Your task to perform on an android device: find which apps use the phone's location Image 0: 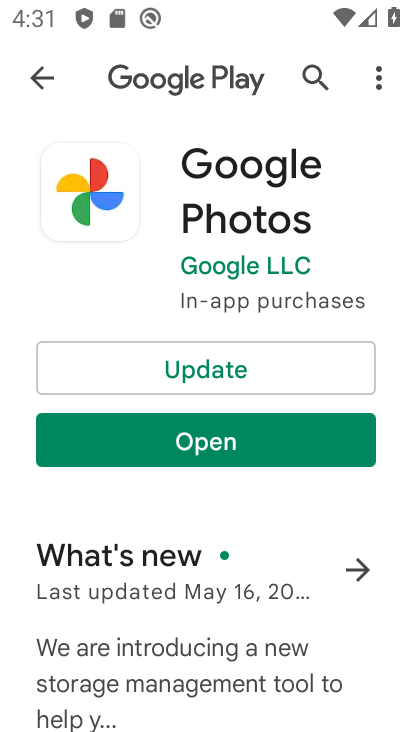
Step 0: press back button
Your task to perform on an android device: find which apps use the phone's location Image 1: 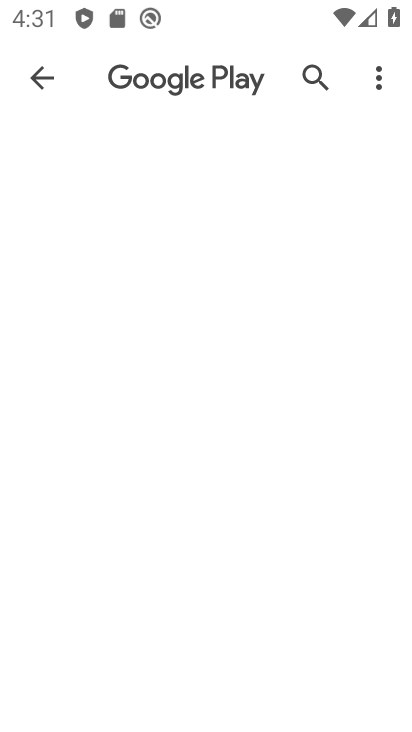
Step 1: press back button
Your task to perform on an android device: find which apps use the phone's location Image 2: 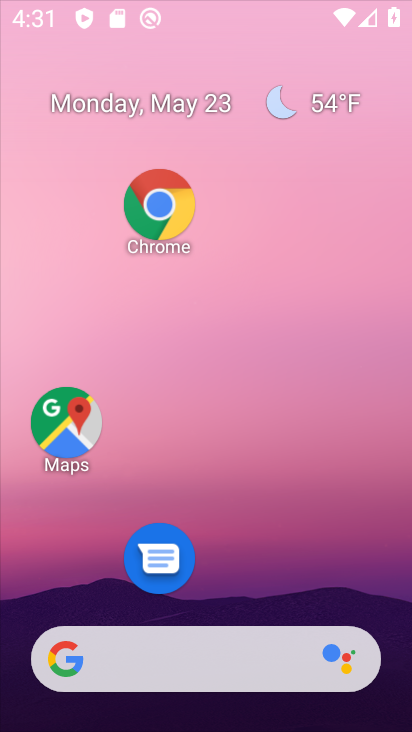
Step 2: press back button
Your task to perform on an android device: find which apps use the phone's location Image 3: 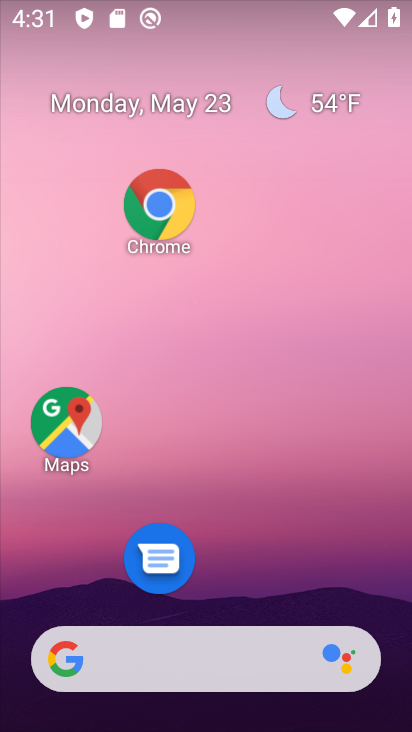
Step 3: drag from (259, 572) to (143, 36)
Your task to perform on an android device: find which apps use the phone's location Image 4: 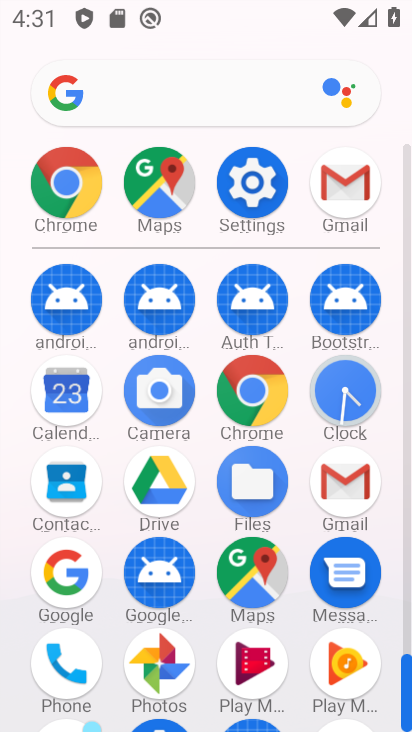
Step 4: click (237, 200)
Your task to perform on an android device: find which apps use the phone's location Image 5: 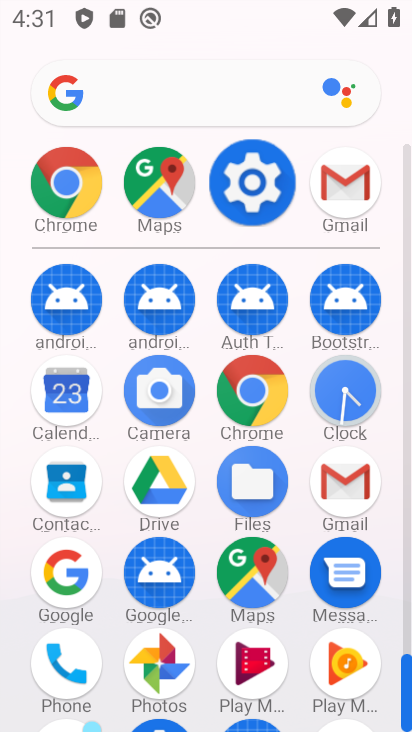
Step 5: click (237, 200)
Your task to perform on an android device: find which apps use the phone's location Image 6: 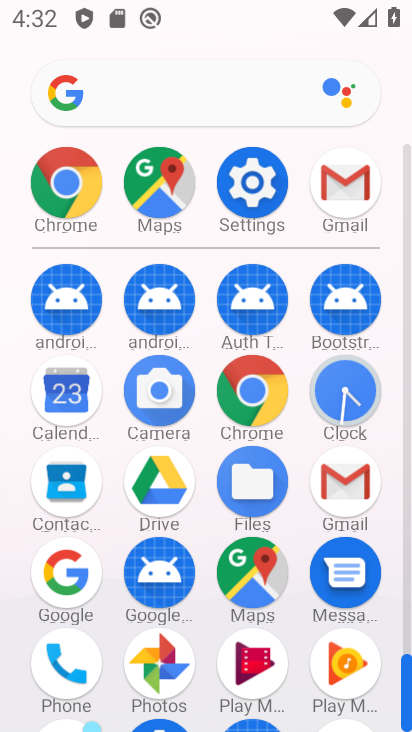
Step 6: click (237, 200)
Your task to perform on an android device: find which apps use the phone's location Image 7: 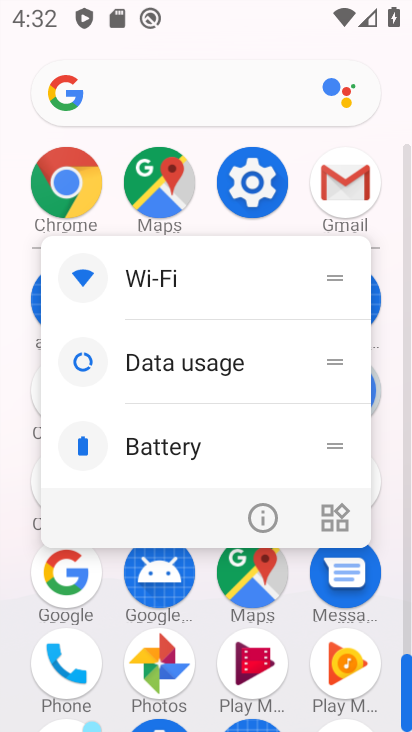
Step 7: click (240, 204)
Your task to perform on an android device: find which apps use the phone's location Image 8: 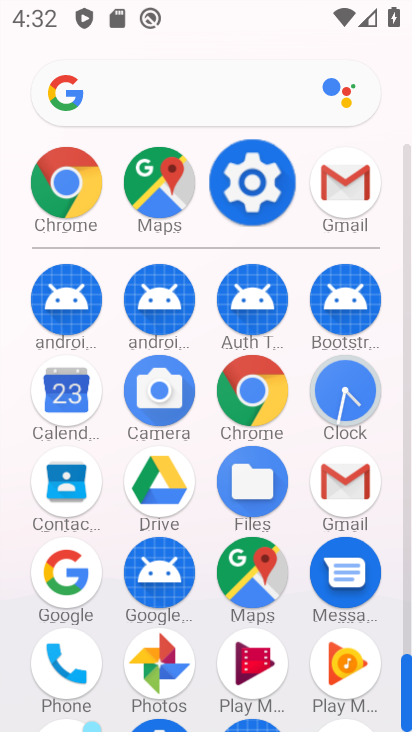
Step 8: click (250, 187)
Your task to perform on an android device: find which apps use the phone's location Image 9: 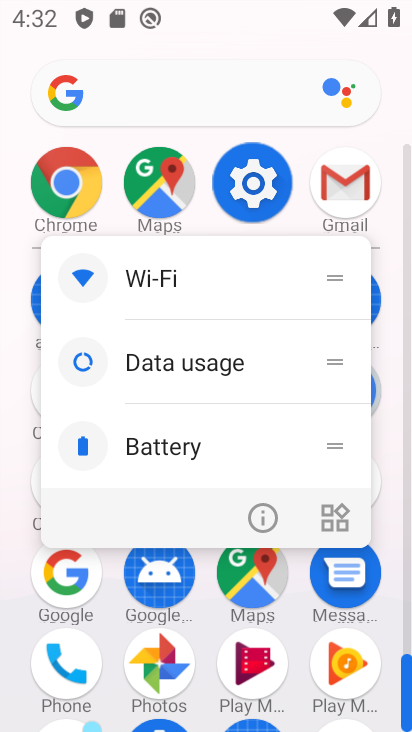
Step 9: click (233, 190)
Your task to perform on an android device: find which apps use the phone's location Image 10: 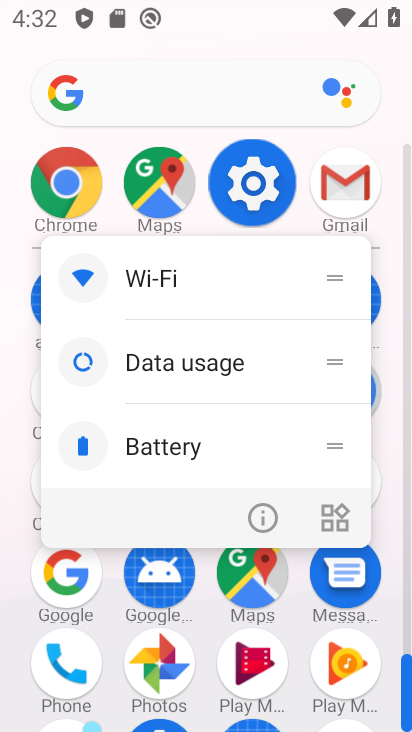
Step 10: click (236, 194)
Your task to perform on an android device: find which apps use the phone's location Image 11: 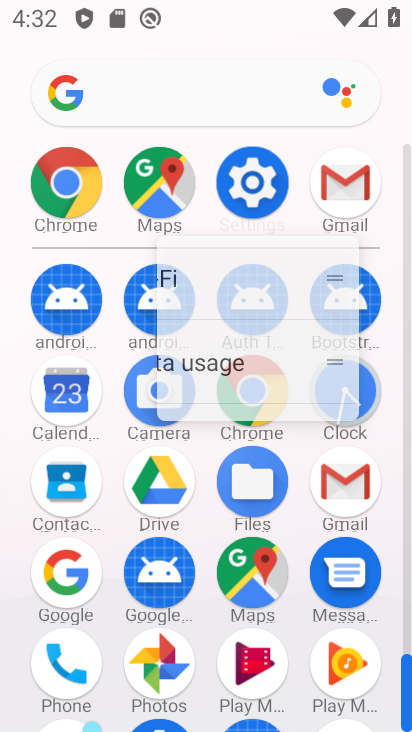
Step 11: click (236, 197)
Your task to perform on an android device: find which apps use the phone's location Image 12: 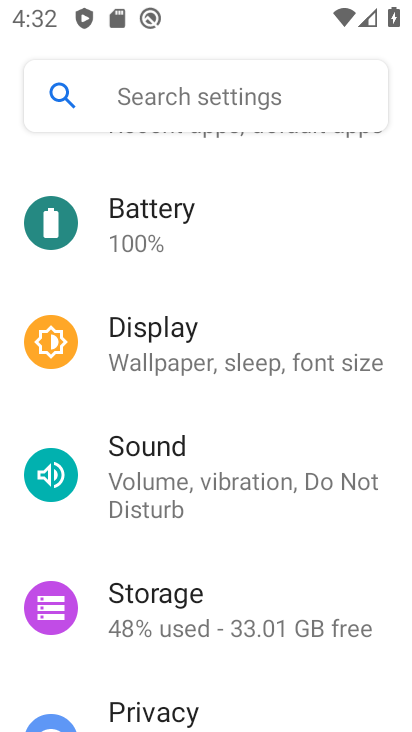
Step 12: drag from (190, 398) to (157, 280)
Your task to perform on an android device: find which apps use the phone's location Image 13: 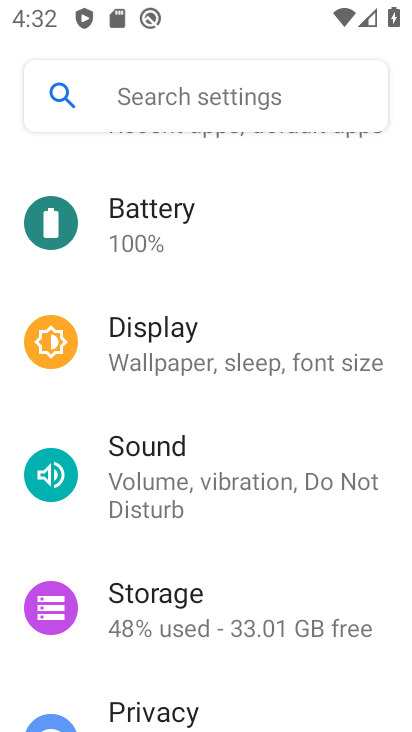
Step 13: drag from (229, 532) to (222, 243)
Your task to perform on an android device: find which apps use the phone's location Image 14: 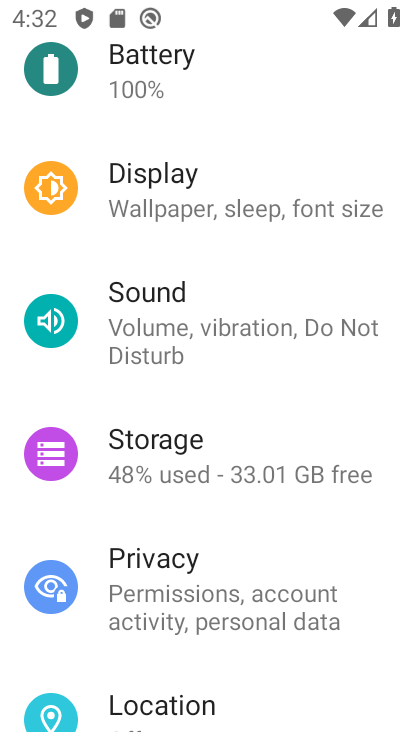
Step 14: drag from (238, 491) to (156, 266)
Your task to perform on an android device: find which apps use the phone's location Image 15: 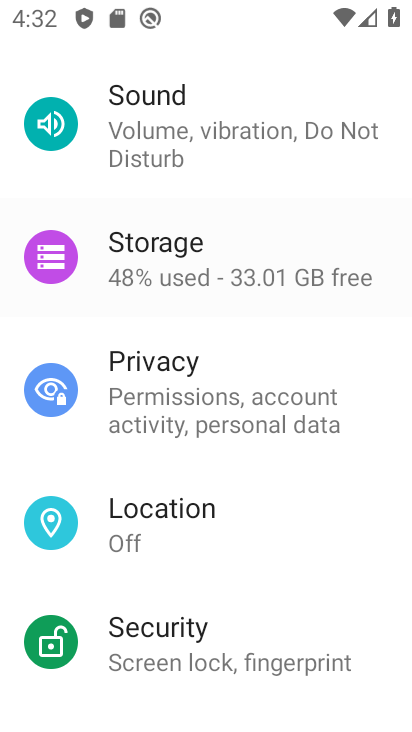
Step 15: drag from (194, 407) to (185, 196)
Your task to perform on an android device: find which apps use the phone's location Image 16: 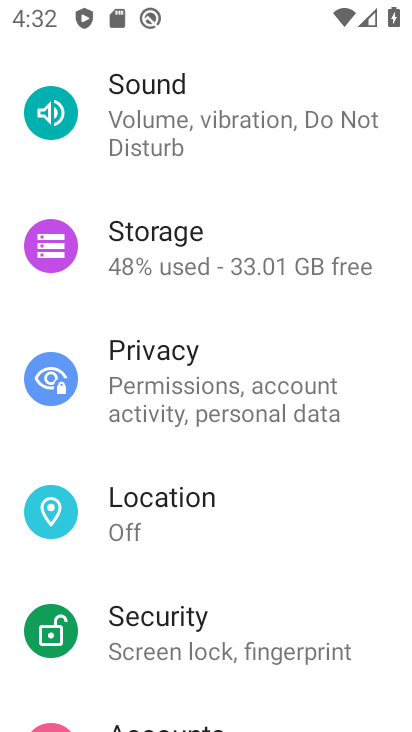
Step 16: drag from (258, 405) to (210, 216)
Your task to perform on an android device: find which apps use the phone's location Image 17: 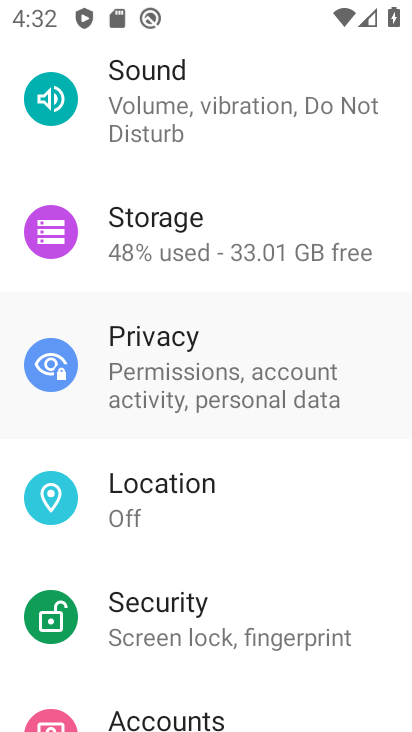
Step 17: drag from (231, 500) to (133, 166)
Your task to perform on an android device: find which apps use the phone's location Image 18: 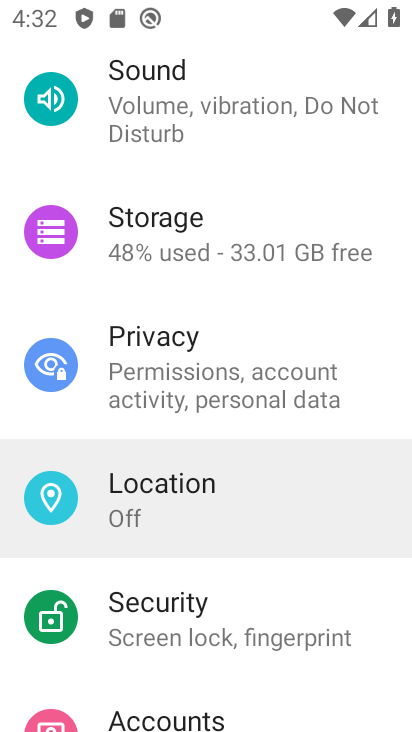
Step 18: drag from (183, 509) to (162, 281)
Your task to perform on an android device: find which apps use the phone's location Image 19: 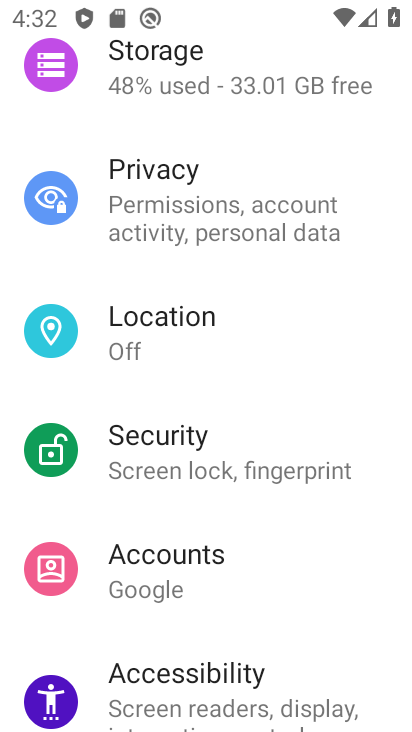
Step 19: drag from (239, 498) to (192, 111)
Your task to perform on an android device: find which apps use the phone's location Image 20: 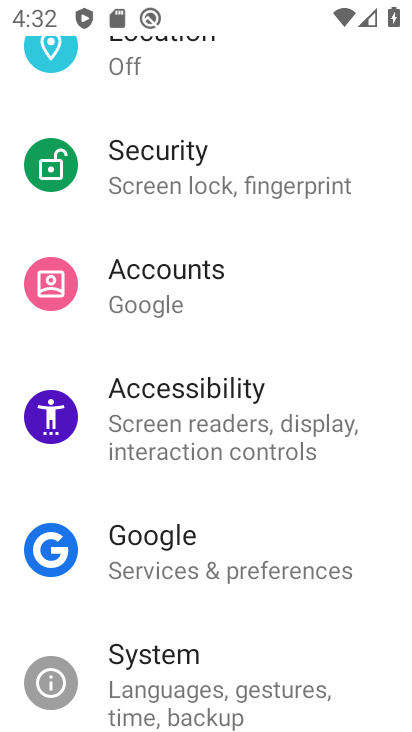
Step 20: drag from (204, 334) to (181, 255)
Your task to perform on an android device: find which apps use the phone's location Image 21: 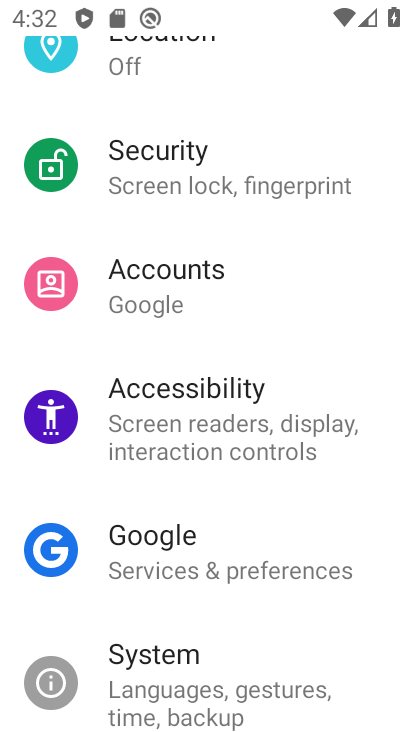
Step 21: drag from (241, 55) to (265, 98)
Your task to perform on an android device: find which apps use the phone's location Image 22: 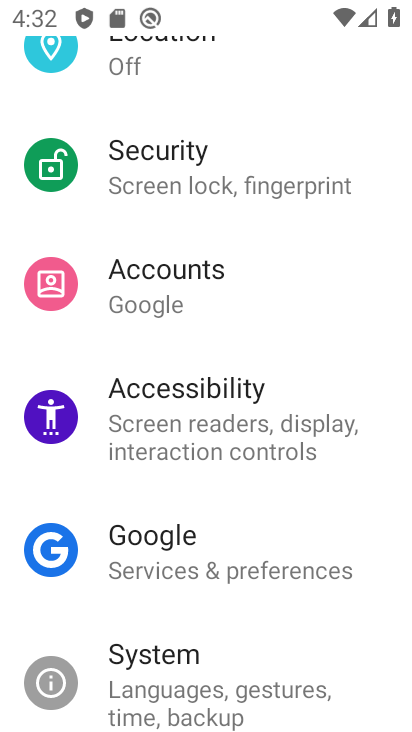
Step 22: drag from (192, 628) to (286, 139)
Your task to perform on an android device: find which apps use the phone's location Image 23: 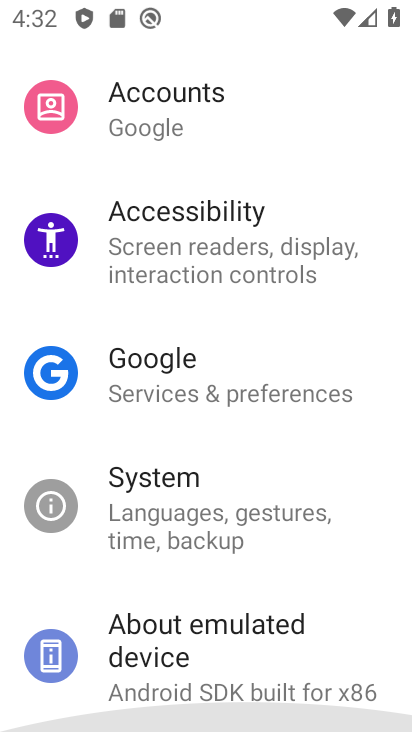
Step 23: drag from (223, 620) to (293, 157)
Your task to perform on an android device: find which apps use the phone's location Image 24: 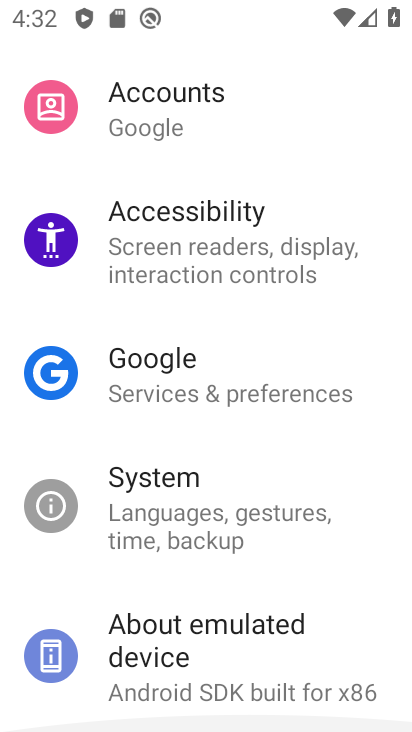
Step 24: drag from (236, 497) to (211, 237)
Your task to perform on an android device: find which apps use the phone's location Image 25: 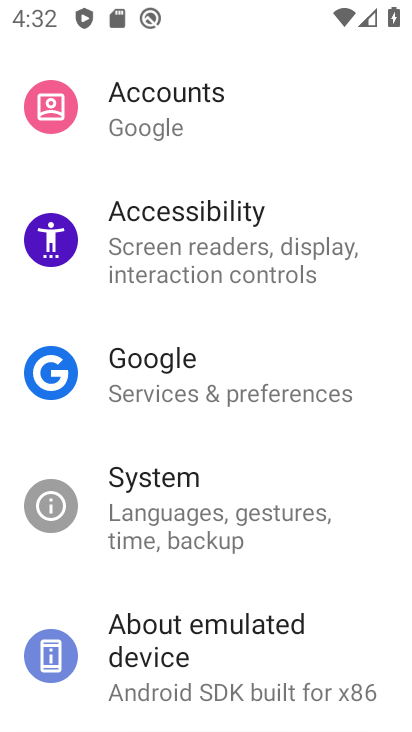
Step 25: drag from (227, 651) to (205, 239)
Your task to perform on an android device: find which apps use the phone's location Image 26: 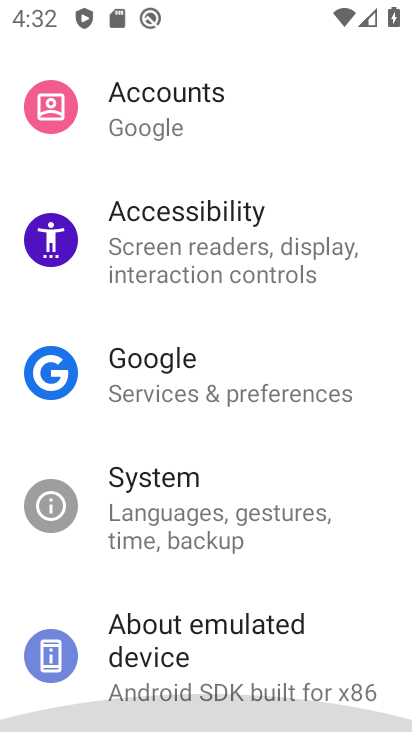
Step 26: drag from (193, 394) to (265, 83)
Your task to perform on an android device: find which apps use the phone's location Image 27: 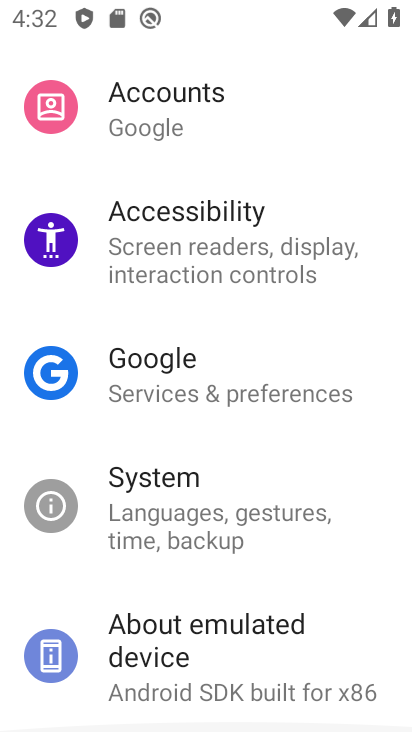
Step 27: drag from (189, 448) to (193, 36)
Your task to perform on an android device: find which apps use the phone's location Image 28: 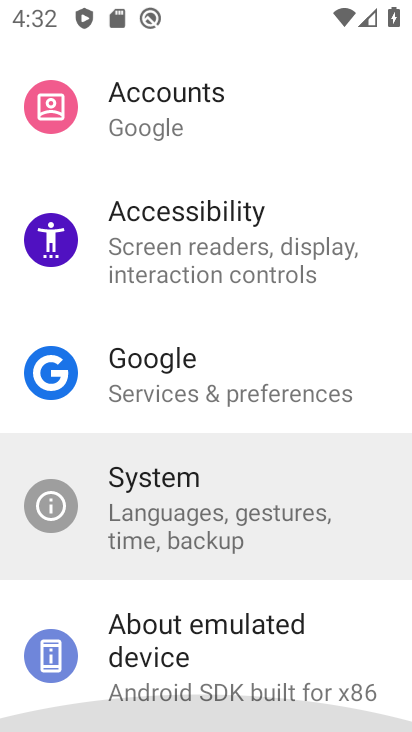
Step 28: drag from (186, 398) to (213, 176)
Your task to perform on an android device: find which apps use the phone's location Image 29: 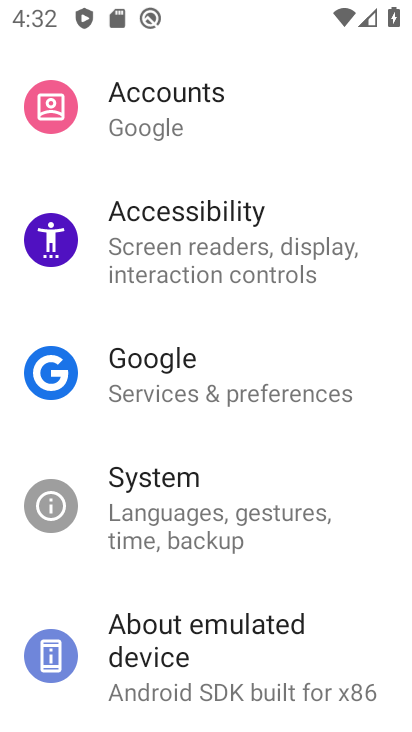
Step 29: drag from (243, 488) to (258, 197)
Your task to perform on an android device: find which apps use the phone's location Image 30: 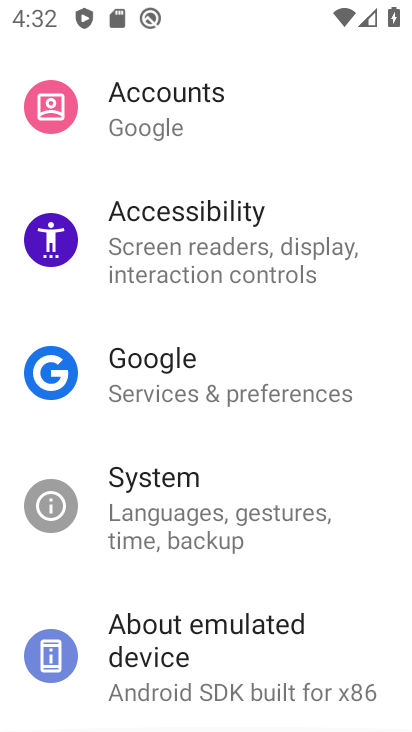
Step 30: drag from (169, 600) to (210, 248)
Your task to perform on an android device: find which apps use the phone's location Image 31: 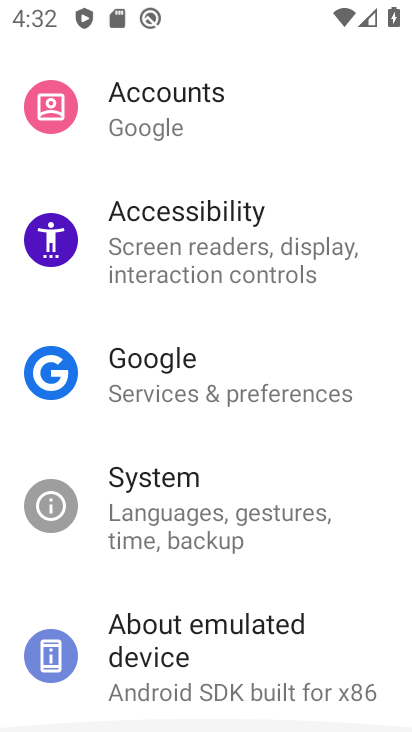
Step 31: drag from (200, 436) to (192, 298)
Your task to perform on an android device: find which apps use the phone's location Image 32: 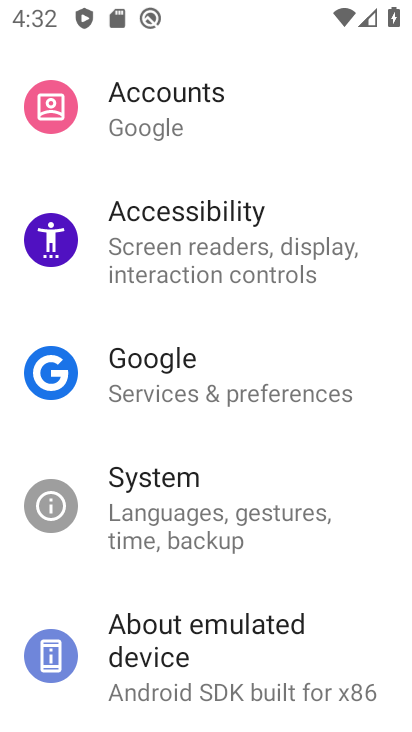
Step 32: drag from (231, 537) to (199, 266)
Your task to perform on an android device: find which apps use the phone's location Image 33: 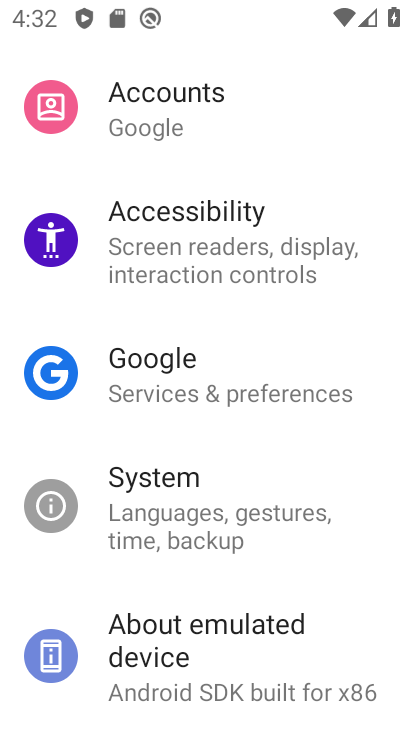
Step 33: drag from (173, 574) to (166, 231)
Your task to perform on an android device: find which apps use the phone's location Image 34: 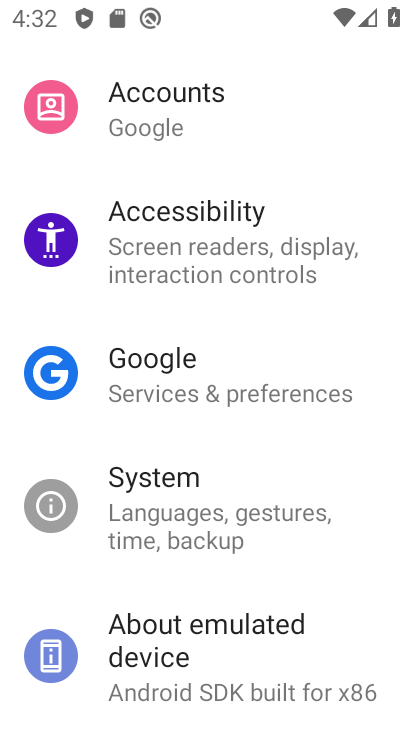
Step 34: drag from (188, 272) to (168, 492)
Your task to perform on an android device: find which apps use the phone's location Image 35: 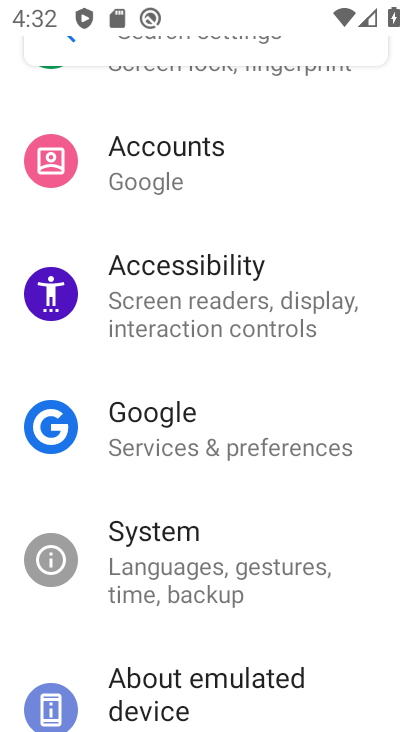
Step 35: drag from (148, 381) to (188, 623)
Your task to perform on an android device: find which apps use the phone's location Image 36: 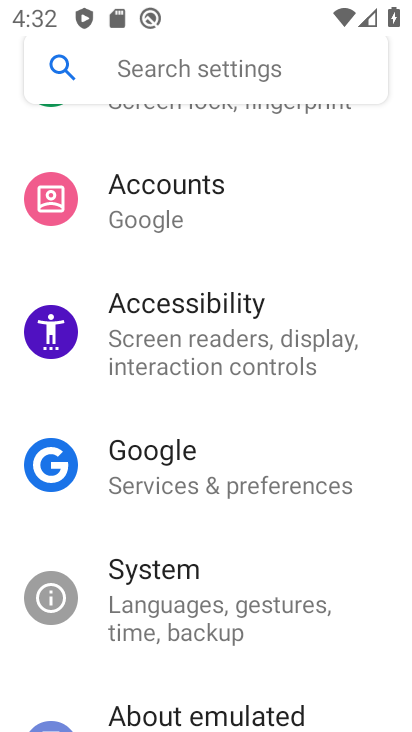
Step 36: drag from (157, 269) to (171, 572)
Your task to perform on an android device: find which apps use the phone's location Image 37: 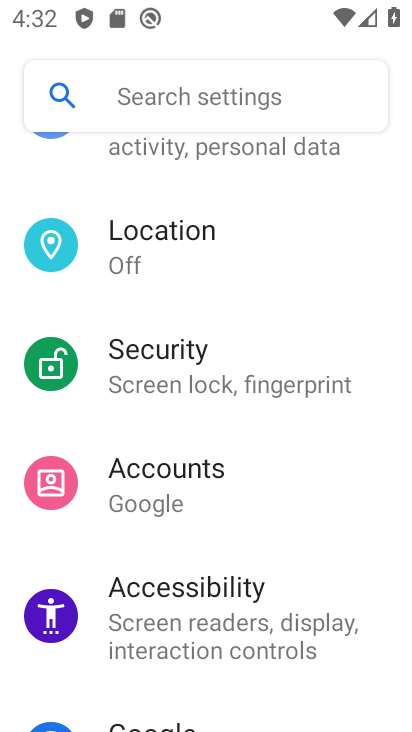
Step 37: drag from (147, 240) to (169, 671)
Your task to perform on an android device: find which apps use the phone's location Image 38: 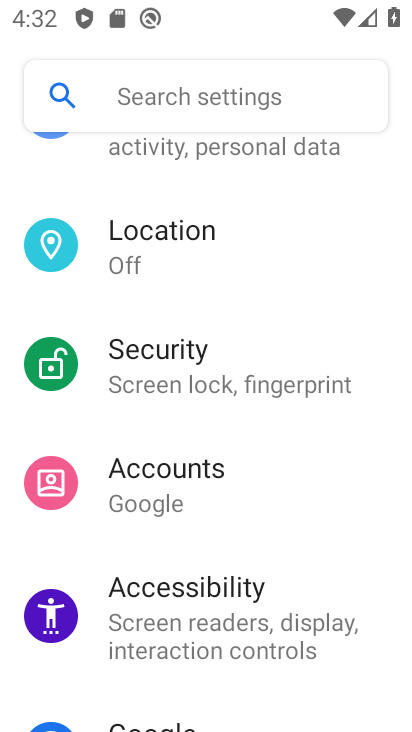
Step 38: drag from (102, 270) to (159, 598)
Your task to perform on an android device: find which apps use the phone's location Image 39: 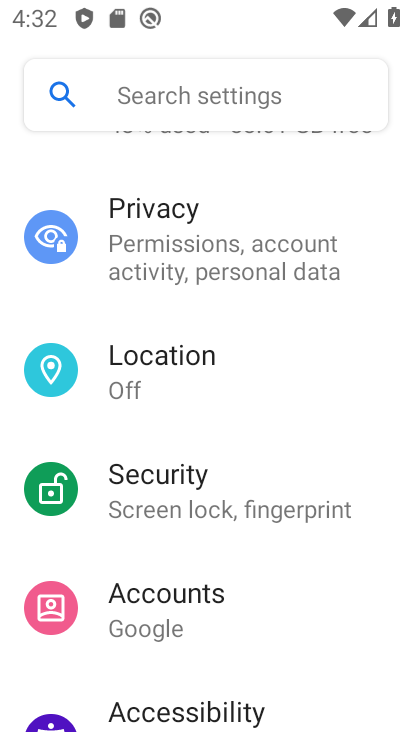
Step 39: click (143, 379)
Your task to perform on an android device: find which apps use the phone's location Image 40: 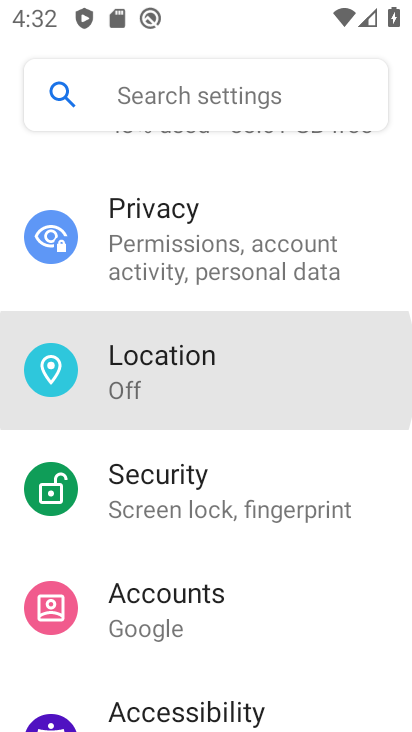
Step 40: click (143, 379)
Your task to perform on an android device: find which apps use the phone's location Image 41: 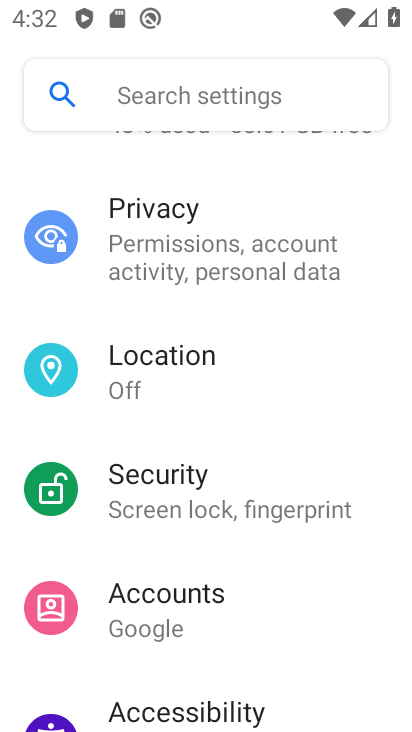
Step 41: click (142, 378)
Your task to perform on an android device: find which apps use the phone's location Image 42: 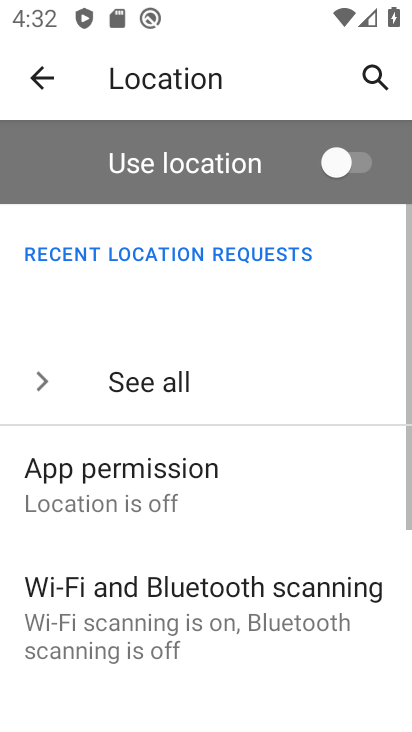
Step 42: click (142, 378)
Your task to perform on an android device: find which apps use the phone's location Image 43: 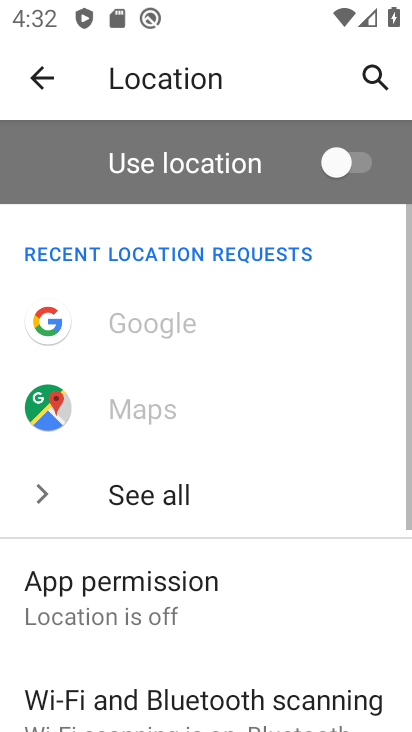
Step 43: click (143, 381)
Your task to perform on an android device: find which apps use the phone's location Image 44: 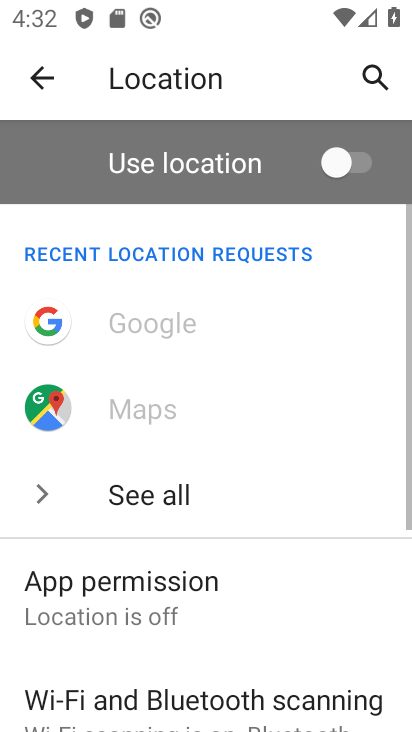
Step 44: click (147, 381)
Your task to perform on an android device: find which apps use the phone's location Image 45: 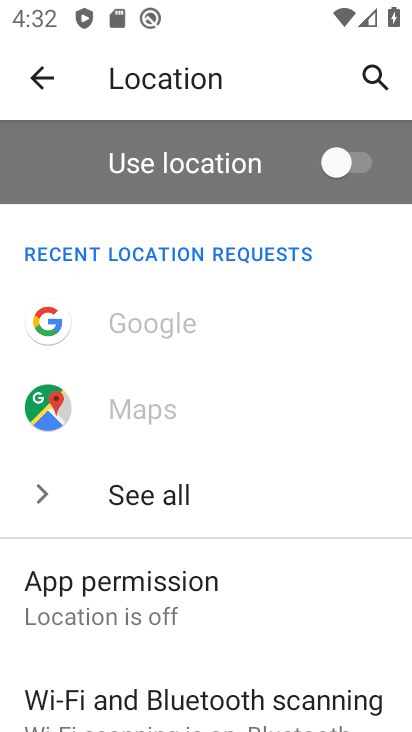
Step 45: task complete